Your task to perform on an android device: Do I have any events tomorrow? Image 0: 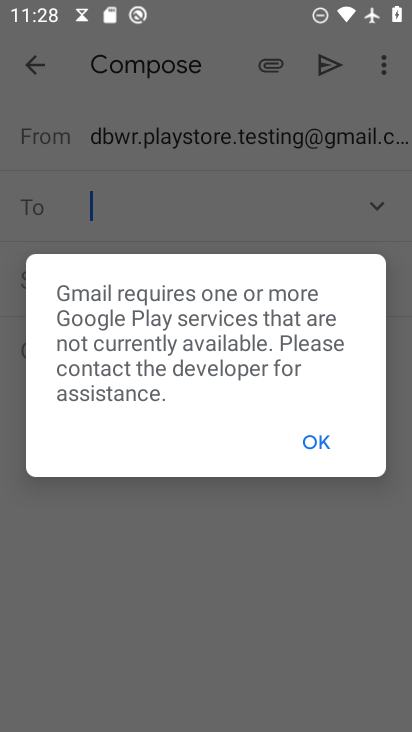
Step 0: press back button
Your task to perform on an android device: Do I have any events tomorrow? Image 1: 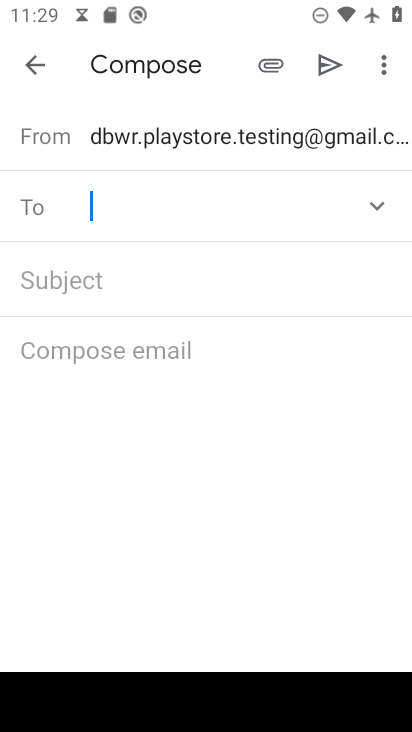
Step 1: press back button
Your task to perform on an android device: Do I have any events tomorrow? Image 2: 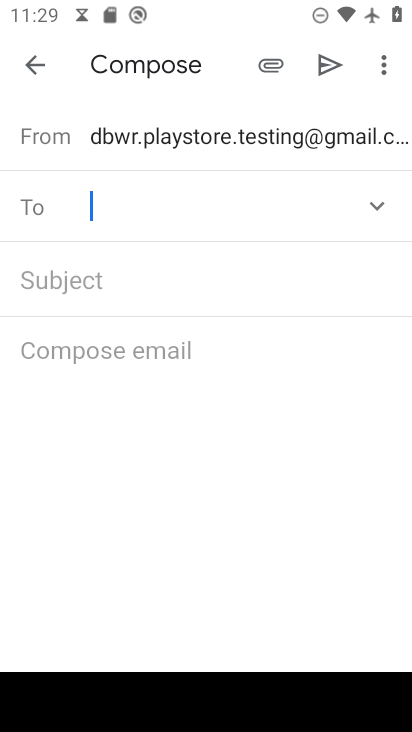
Step 2: press home button
Your task to perform on an android device: Do I have any events tomorrow? Image 3: 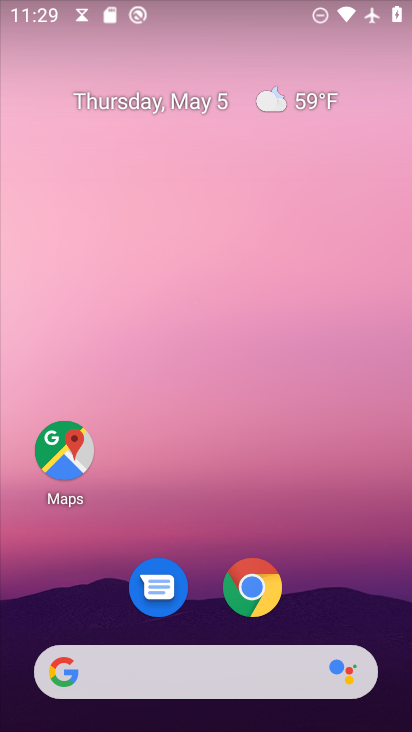
Step 3: drag from (314, 538) to (230, 12)
Your task to perform on an android device: Do I have any events tomorrow? Image 4: 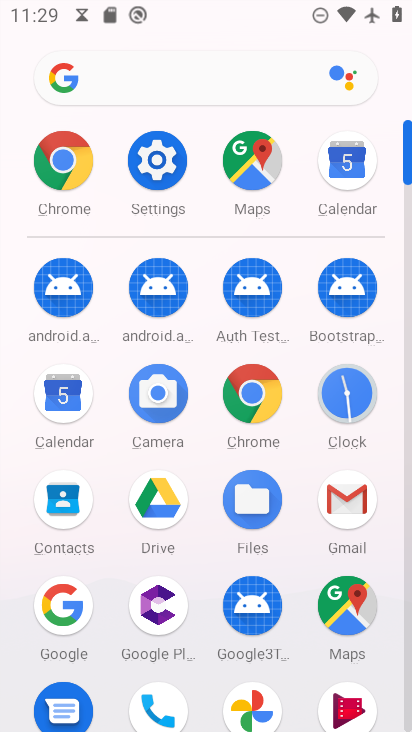
Step 4: drag from (14, 577) to (18, 302)
Your task to perform on an android device: Do I have any events tomorrow? Image 5: 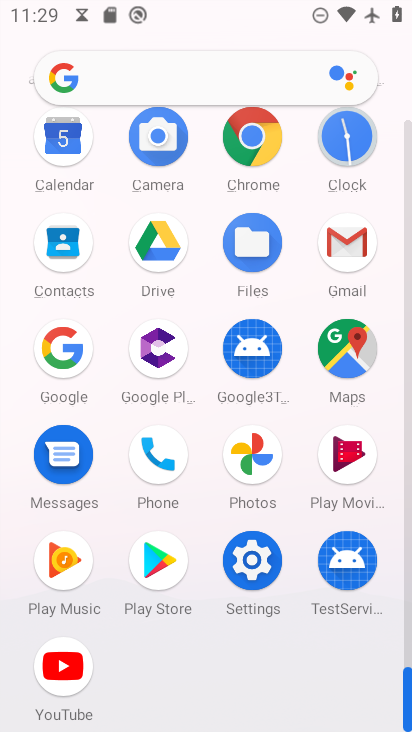
Step 5: drag from (14, 558) to (1, 212)
Your task to perform on an android device: Do I have any events tomorrow? Image 6: 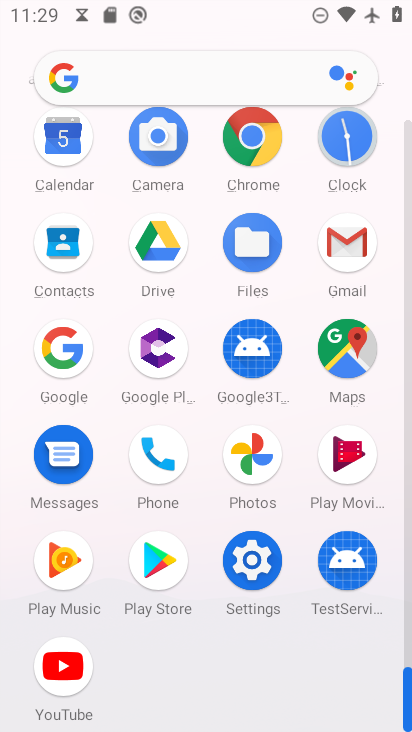
Step 6: click (45, 132)
Your task to perform on an android device: Do I have any events tomorrow? Image 7: 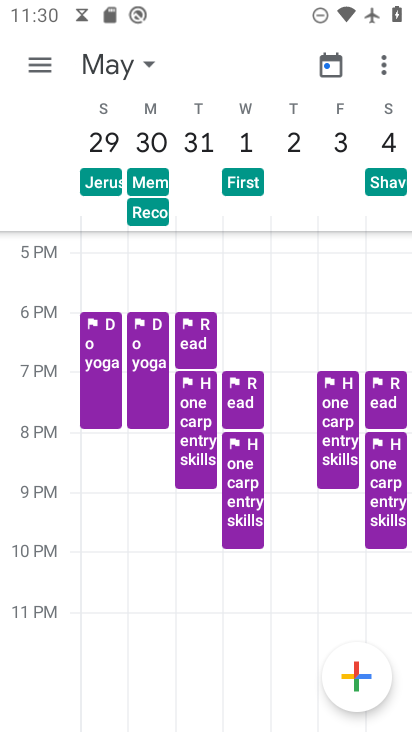
Step 7: task complete